Your task to perform on an android device: open chrome privacy settings Image 0: 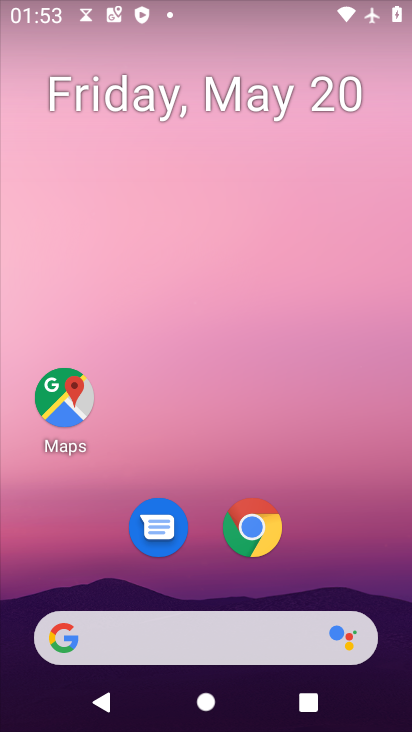
Step 0: press home button
Your task to perform on an android device: open chrome privacy settings Image 1: 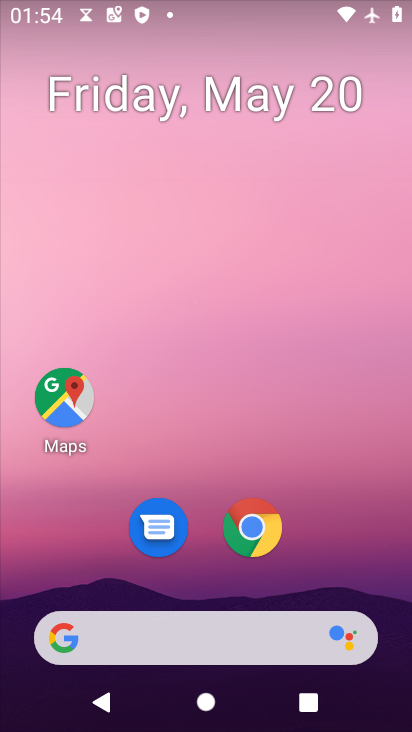
Step 1: click (256, 536)
Your task to perform on an android device: open chrome privacy settings Image 2: 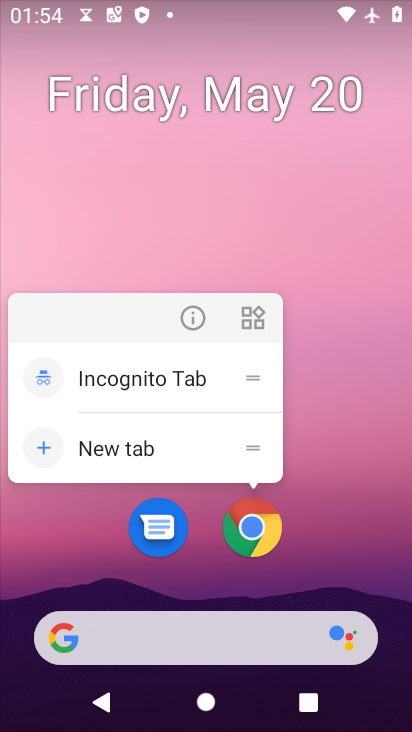
Step 2: click (254, 542)
Your task to perform on an android device: open chrome privacy settings Image 3: 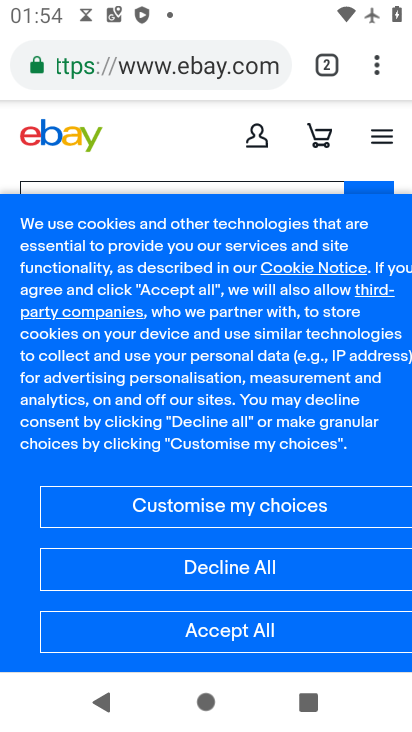
Step 3: drag from (375, 70) to (221, 585)
Your task to perform on an android device: open chrome privacy settings Image 4: 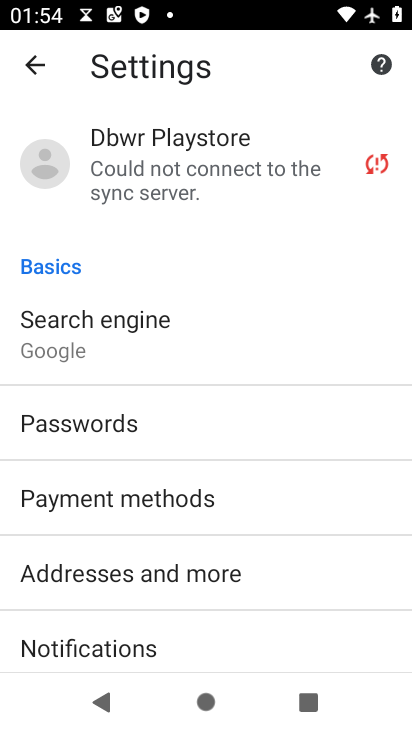
Step 4: drag from (253, 647) to (267, 335)
Your task to perform on an android device: open chrome privacy settings Image 5: 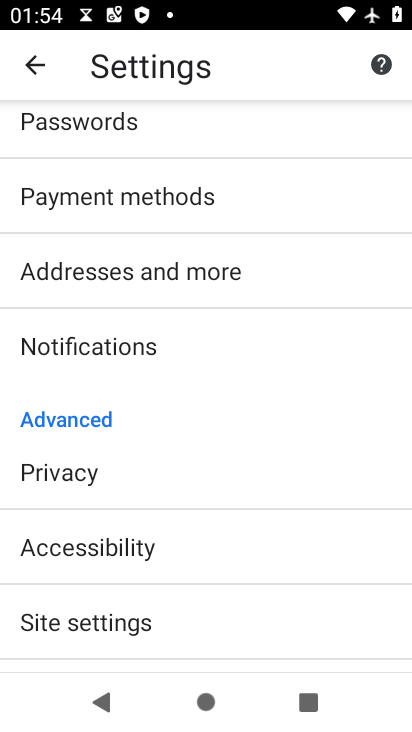
Step 5: click (71, 474)
Your task to perform on an android device: open chrome privacy settings Image 6: 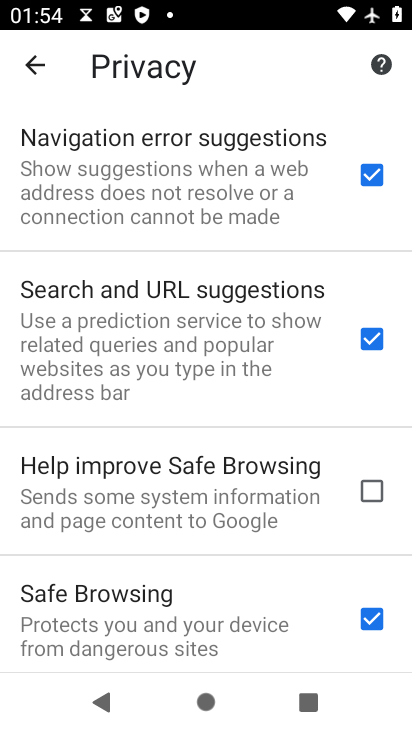
Step 6: task complete